Your task to perform on an android device: Open Google Maps and go to "Timeline" Image 0: 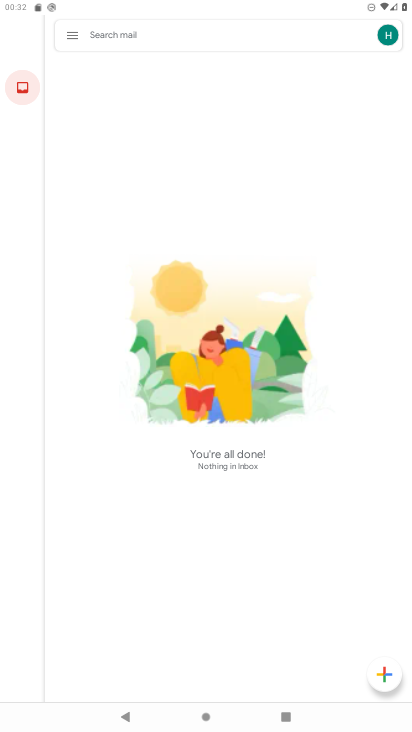
Step 0: press home button
Your task to perform on an android device: Open Google Maps and go to "Timeline" Image 1: 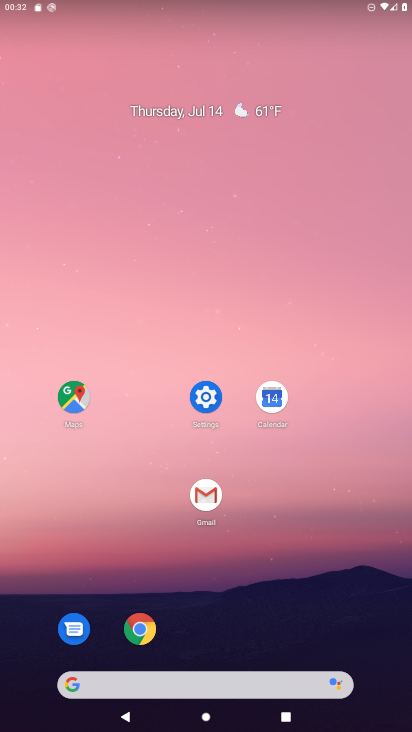
Step 1: click (69, 396)
Your task to perform on an android device: Open Google Maps and go to "Timeline" Image 2: 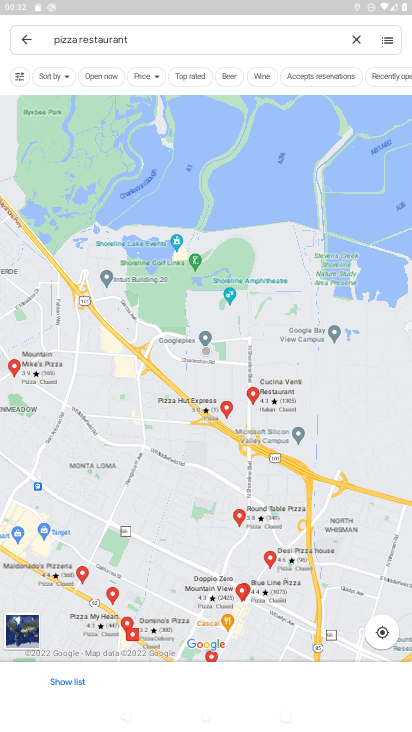
Step 2: click (33, 36)
Your task to perform on an android device: Open Google Maps and go to "Timeline" Image 3: 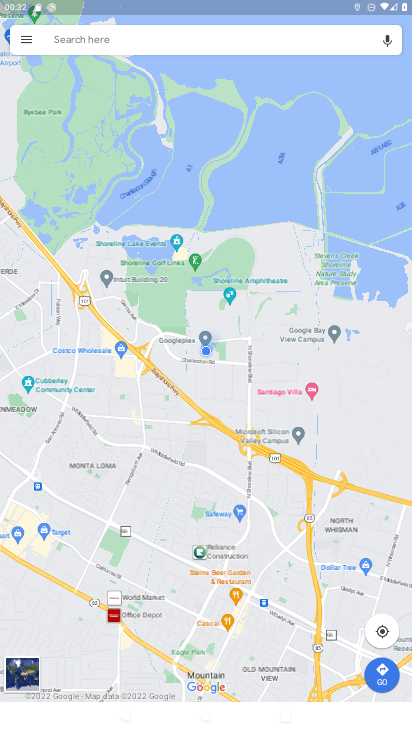
Step 3: click (22, 34)
Your task to perform on an android device: Open Google Maps and go to "Timeline" Image 4: 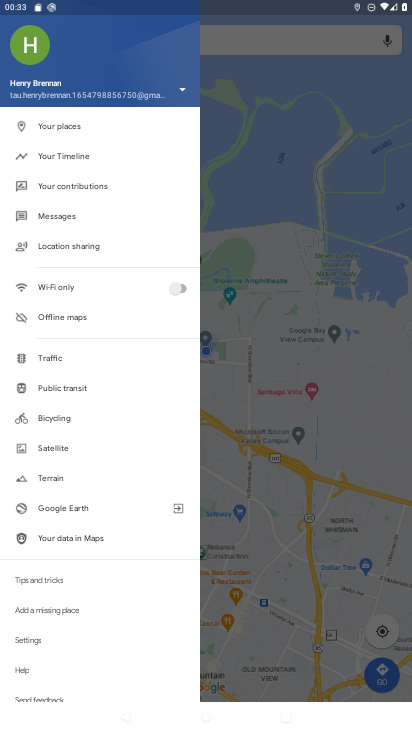
Step 4: click (57, 149)
Your task to perform on an android device: Open Google Maps and go to "Timeline" Image 5: 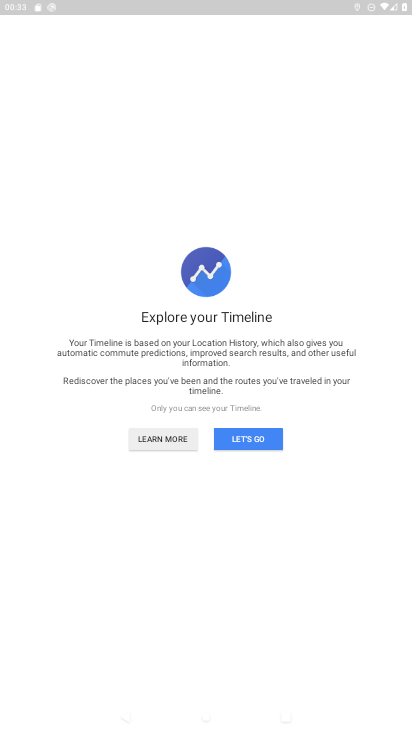
Step 5: click (258, 442)
Your task to perform on an android device: Open Google Maps and go to "Timeline" Image 6: 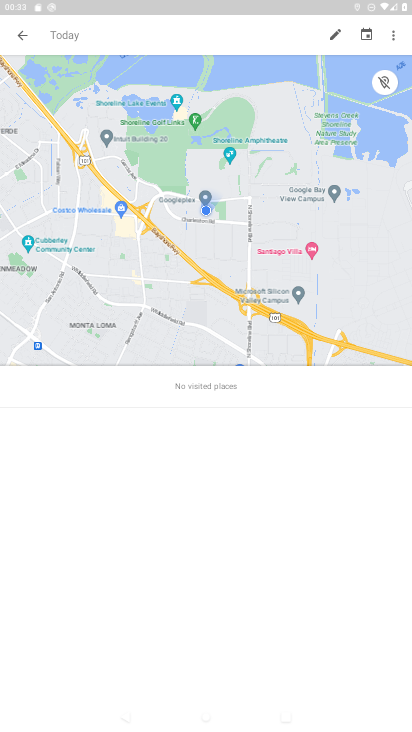
Step 6: task complete